Your task to perform on an android device: Open Google Chrome Image 0: 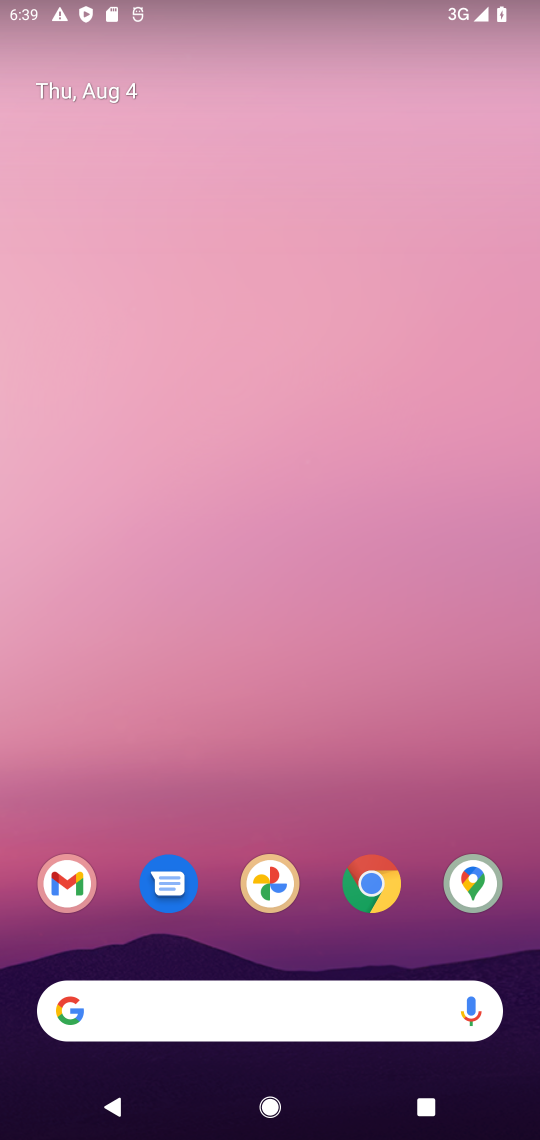
Step 0: click (388, 908)
Your task to perform on an android device: Open Google Chrome Image 1: 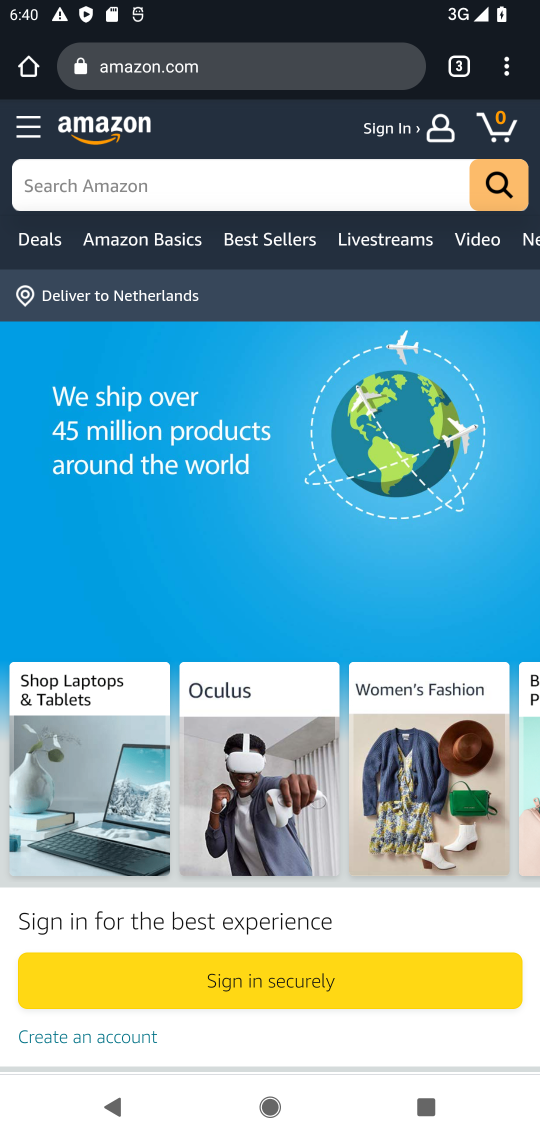
Step 1: task complete